Your task to perform on an android device: Open notification settings Image 0: 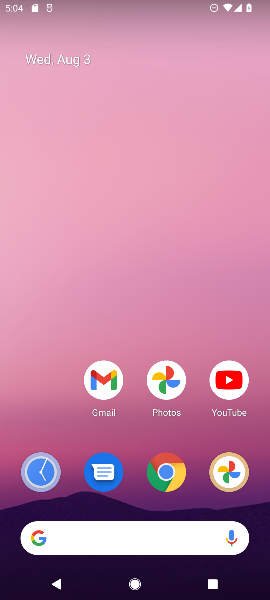
Step 0: drag from (211, 520) to (52, 66)
Your task to perform on an android device: Open notification settings Image 1: 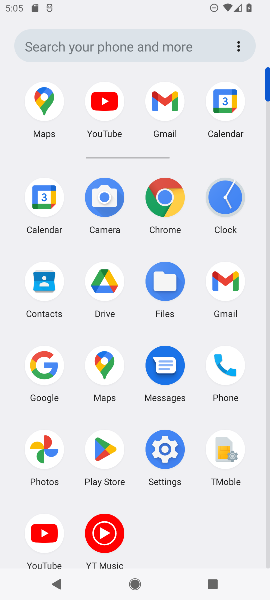
Step 1: click (174, 468)
Your task to perform on an android device: Open notification settings Image 2: 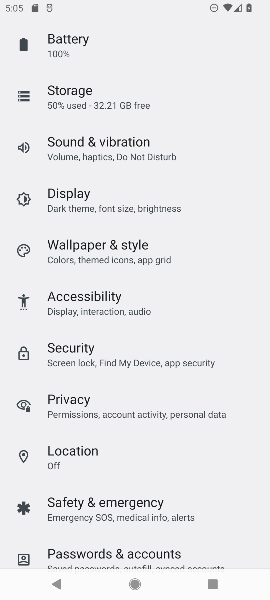
Step 2: drag from (109, 218) to (142, 495)
Your task to perform on an android device: Open notification settings Image 3: 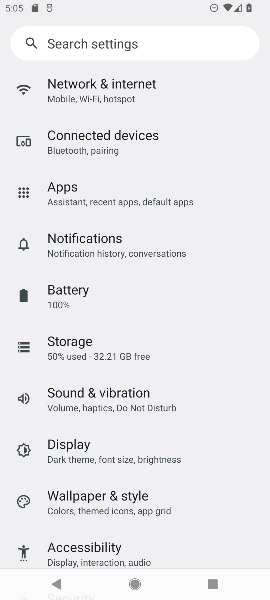
Step 3: drag from (105, 152) to (119, 521)
Your task to perform on an android device: Open notification settings Image 4: 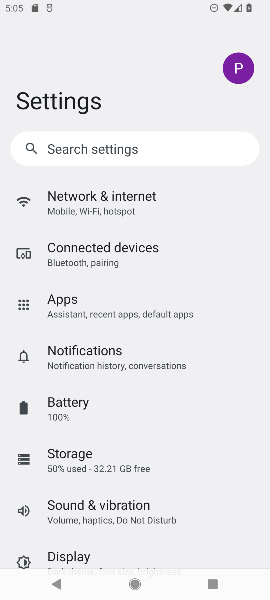
Step 4: click (91, 353)
Your task to perform on an android device: Open notification settings Image 5: 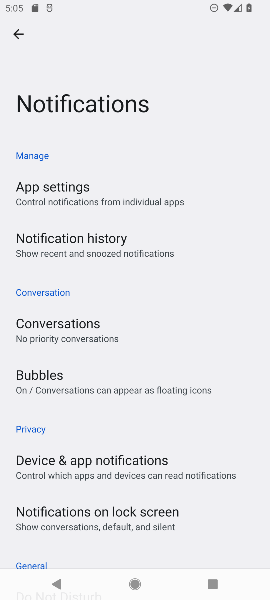
Step 5: task complete